Your task to perform on an android device: What's on my calendar tomorrow? Image 0: 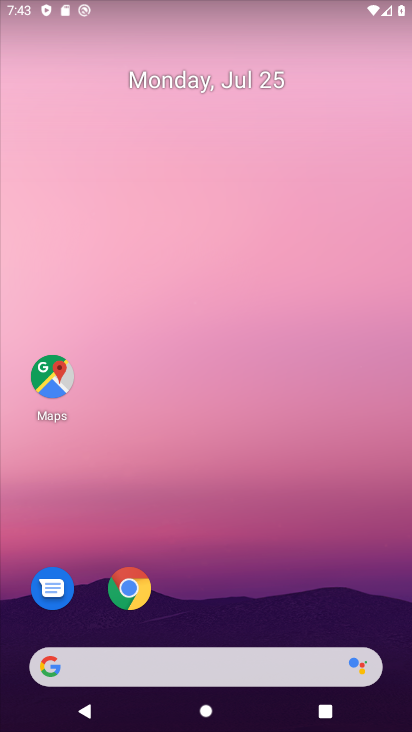
Step 0: drag from (142, 624) to (146, 242)
Your task to perform on an android device: What's on my calendar tomorrow? Image 1: 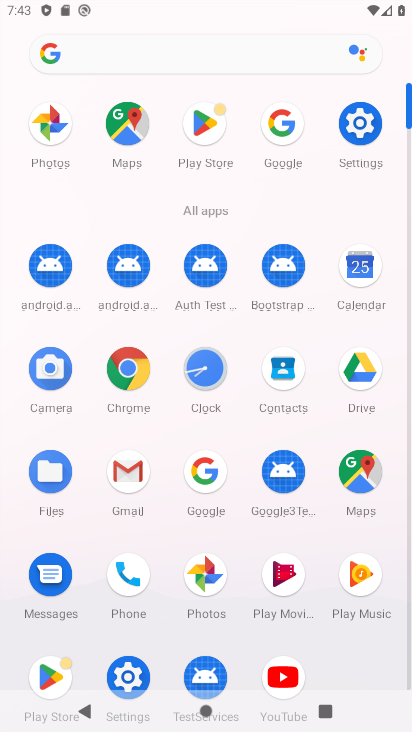
Step 1: click (349, 268)
Your task to perform on an android device: What's on my calendar tomorrow? Image 2: 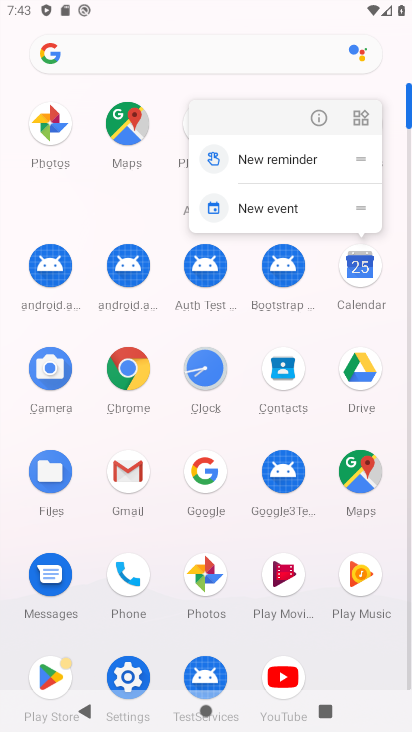
Step 2: click (367, 248)
Your task to perform on an android device: What's on my calendar tomorrow? Image 3: 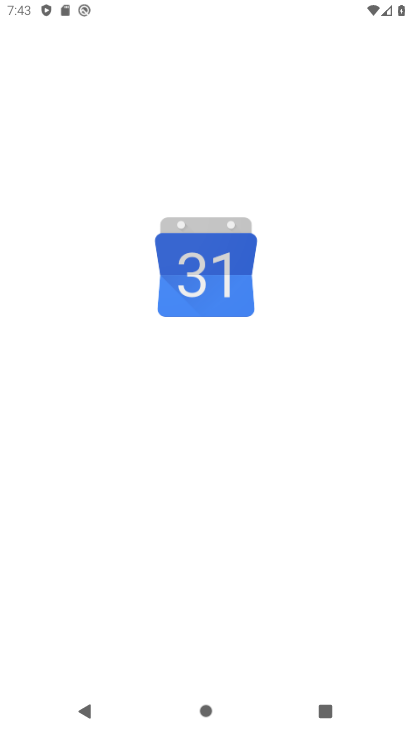
Step 3: click (360, 279)
Your task to perform on an android device: What's on my calendar tomorrow? Image 4: 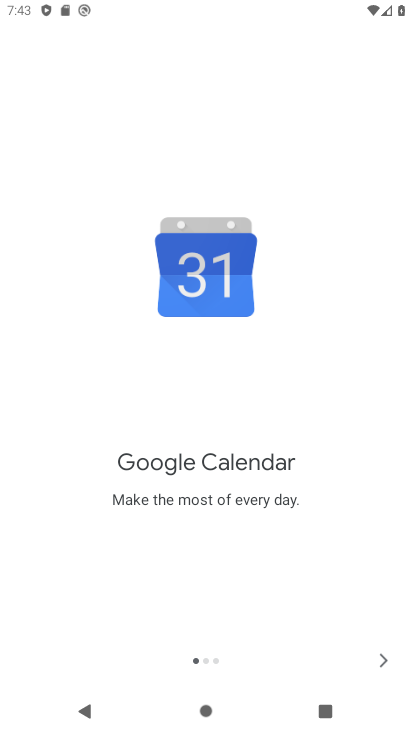
Step 4: click (377, 655)
Your task to perform on an android device: What's on my calendar tomorrow? Image 5: 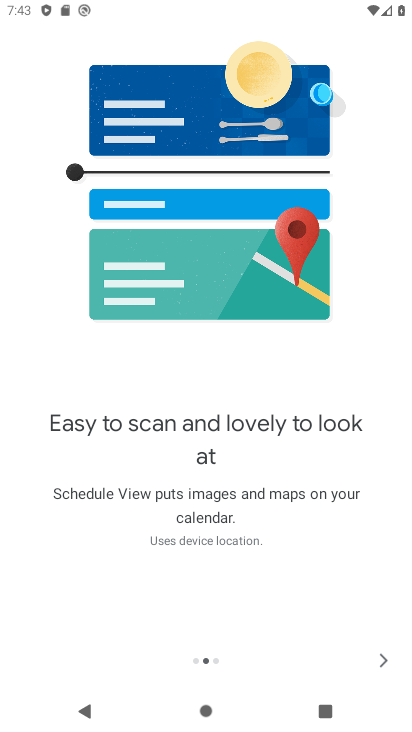
Step 5: click (377, 655)
Your task to perform on an android device: What's on my calendar tomorrow? Image 6: 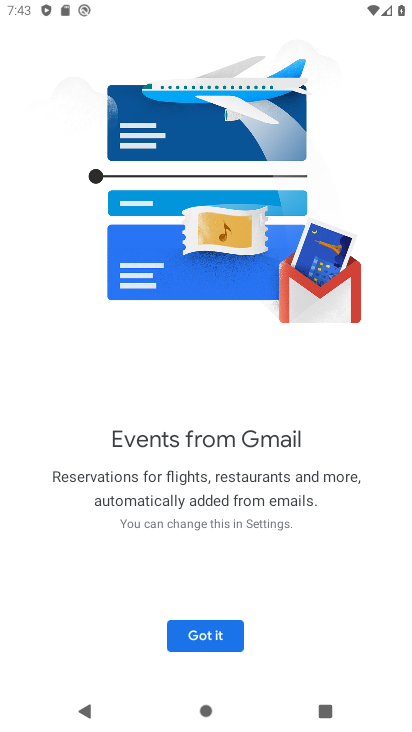
Step 6: click (230, 640)
Your task to perform on an android device: What's on my calendar tomorrow? Image 7: 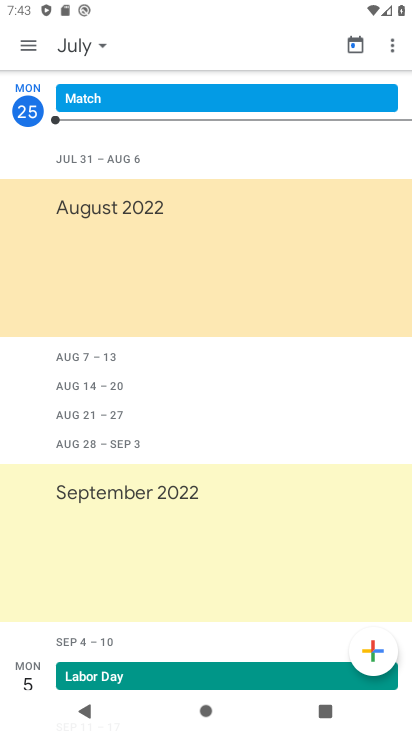
Step 7: click (73, 49)
Your task to perform on an android device: What's on my calendar tomorrow? Image 8: 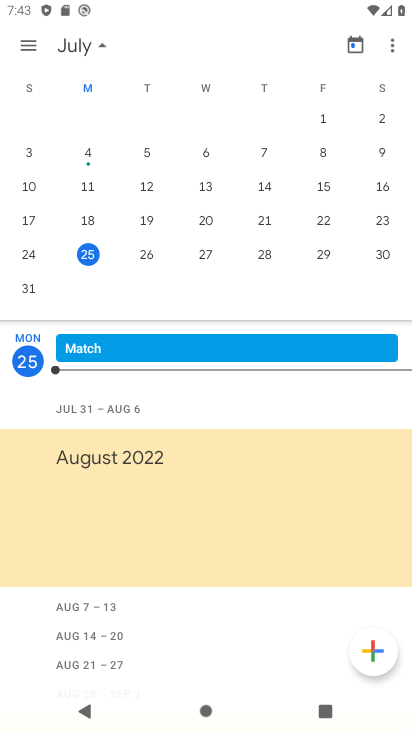
Step 8: click (144, 252)
Your task to perform on an android device: What's on my calendar tomorrow? Image 9: 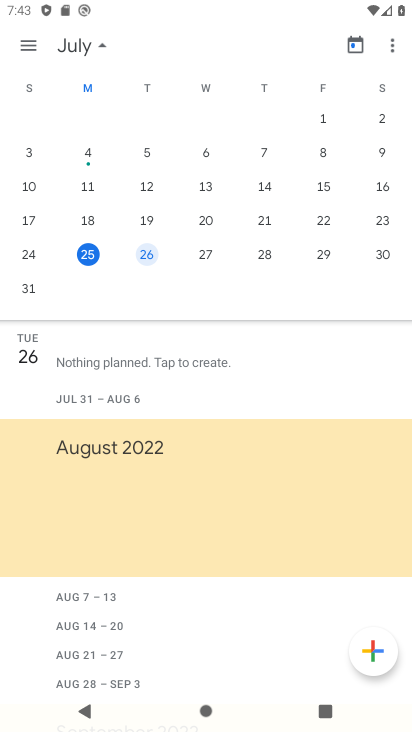
Step 9: task complete